Your task to perform on an android device: Open calendar and show me the second week of next month Image 0: 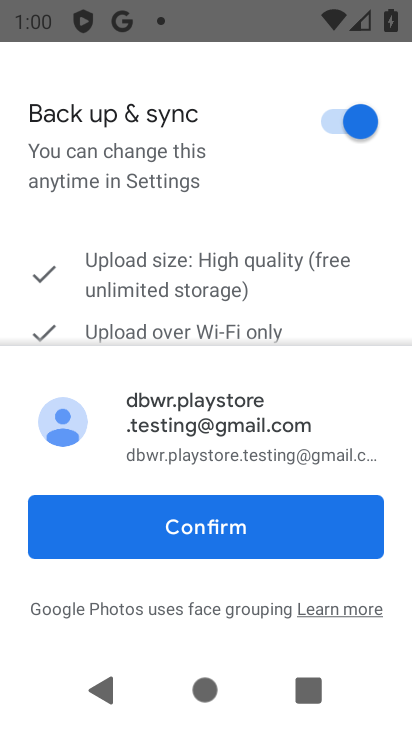
Step 0: press home button
Your task to perform on an android device: Open calendar and show me the second week of next month Image 1: 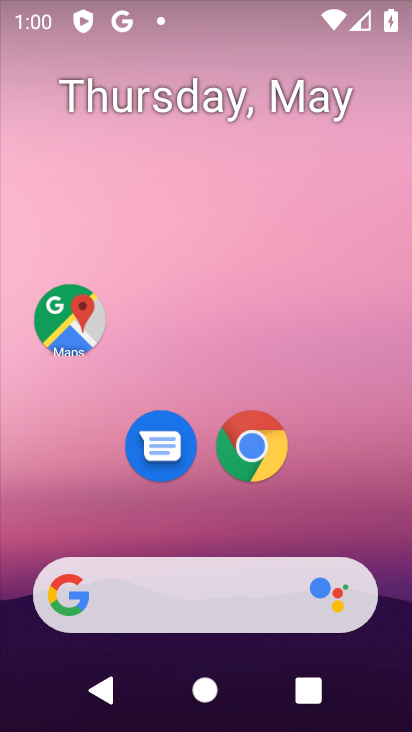
Step 1: drag from (220, 443) to (259, 223)
Your task to perform on an android device: Open calendar and show me the second week of next month Image 2: 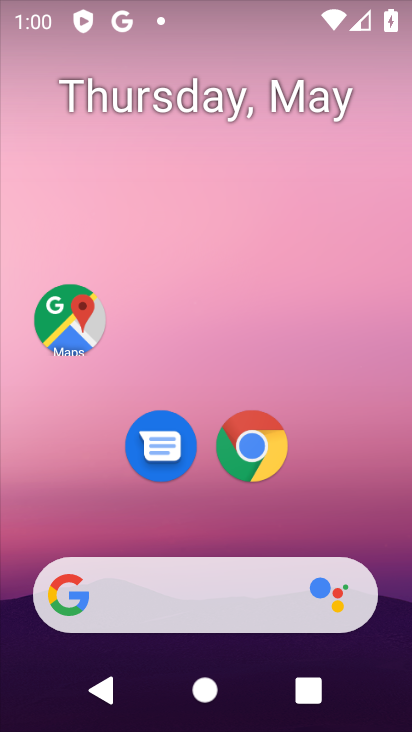
Step 2: drag from (169, 526) to (285, 106)
Your task to perform on an android device: Open calendar and show me the second week of next month Image 3: 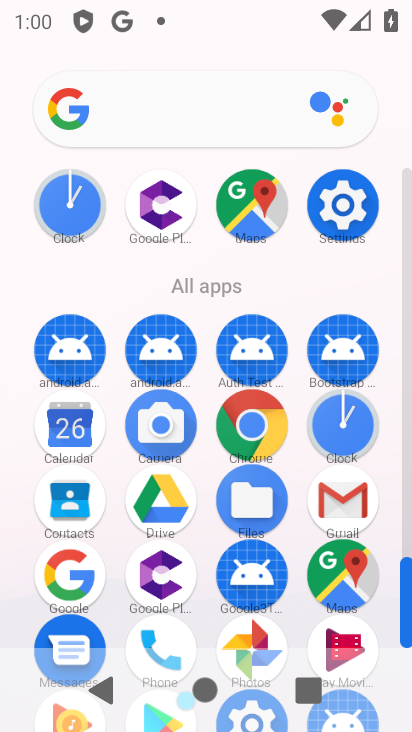
Step 3: click (80, 440)
Your task to perform on an android device: Open calendar and show me the second week of next month Image 4: 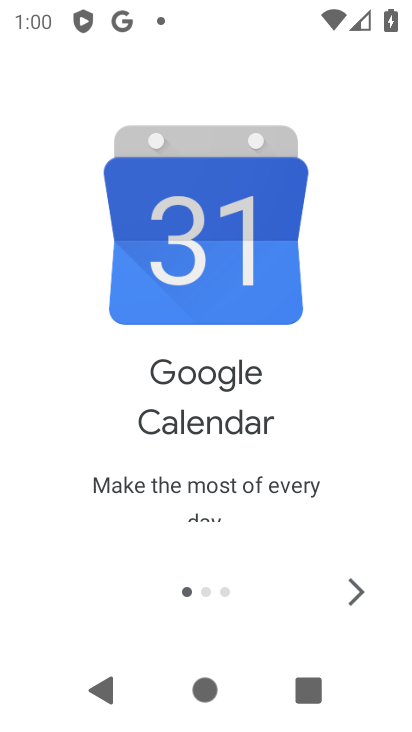
Step 4: click (357, 589)
Your task to perform on an android device: Open calendar and show me the second week of next month Image 5: 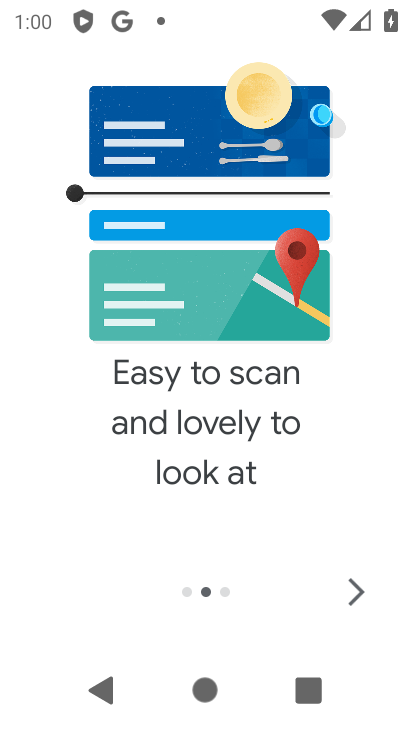
Step 5: click (356, 591)
Your task to perform on an android device: Open calendar and show me the second week of next month Image 6: 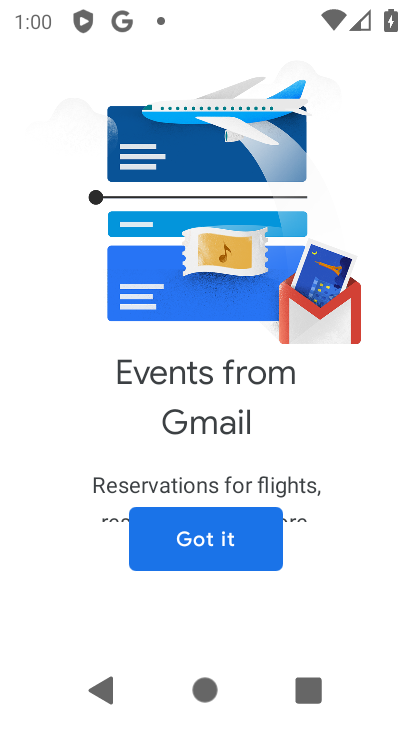
Step 6: click (242, 545)
Your task to perform on an android device: Open calendar and show me the second week of next month Image 7: 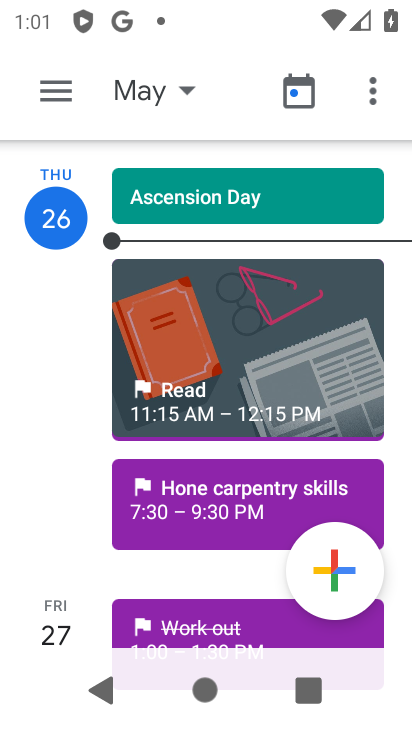
Step 7: click (66, 97)
Your task to perform on an android device: Open calendar and show me the second week of next month Image 8: 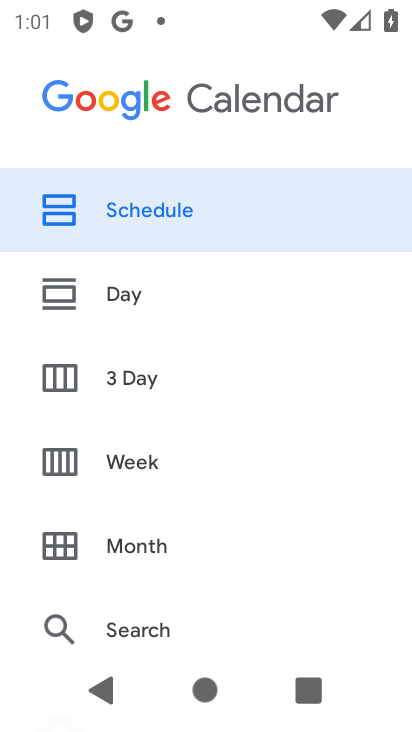
Step 8: click (131, 469)
Your task to perform on an android device: Open calendar and show me the second week of next month Image 9: 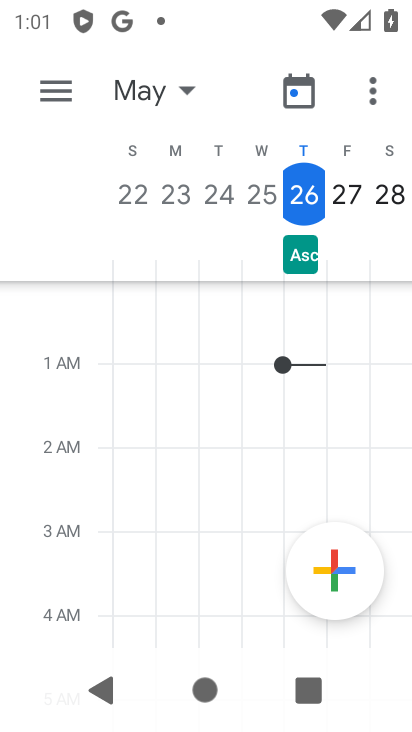
Step 9: task complete